Your task to perform on an android device: Search for Italian restaurants on Maps Image 0: 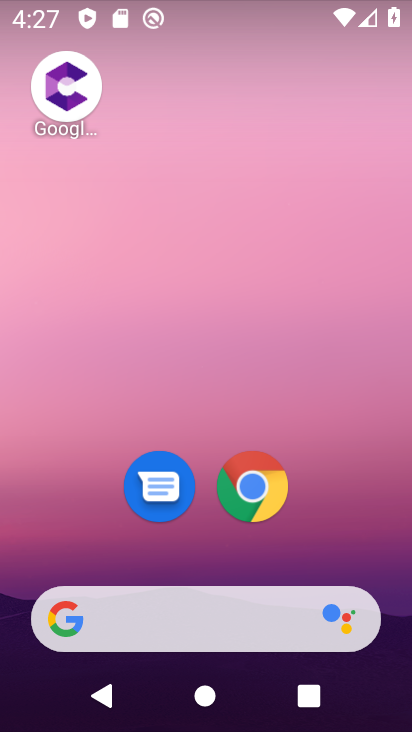
Step 0: drag from (370, 532) to (245, 4)
Your task to perform on an android device: Search for Italian restaurants on Maps Image 1: 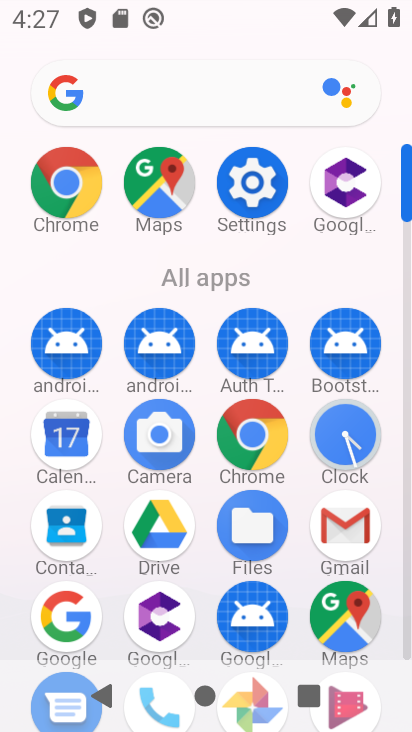
Step 1: click (176, 191)
Your task to perform on an android device: Search for Italian restaurants on Maps Image 2: 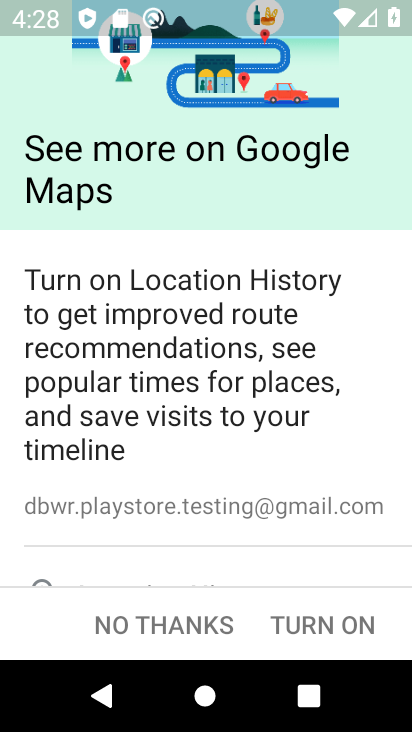
Step 2: click (203, 631)
Your task to perform on an android device: Search for Italian restaurants on Maps Image 3: 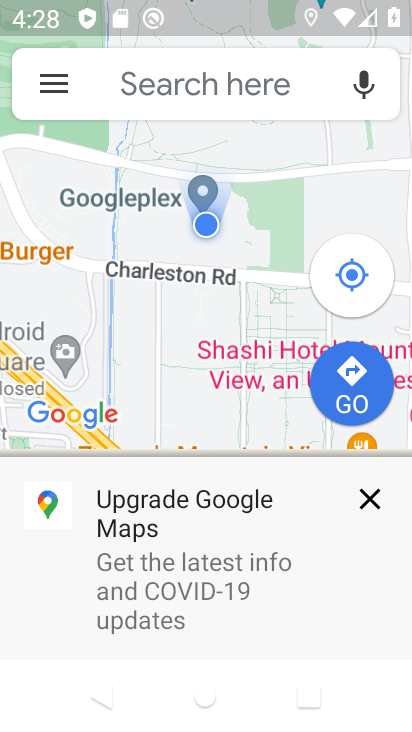
Step 3: click (236, 88)
Your task to perform on an android device: Search for Italian restaurants on Maps Image 4: 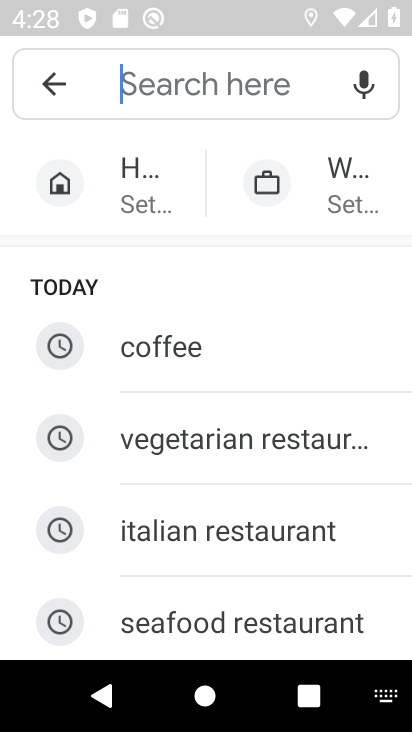
Step 4: click (282, 524)
Your task to perform on an android device: Search for Italian restaurants on Maps Image 5: 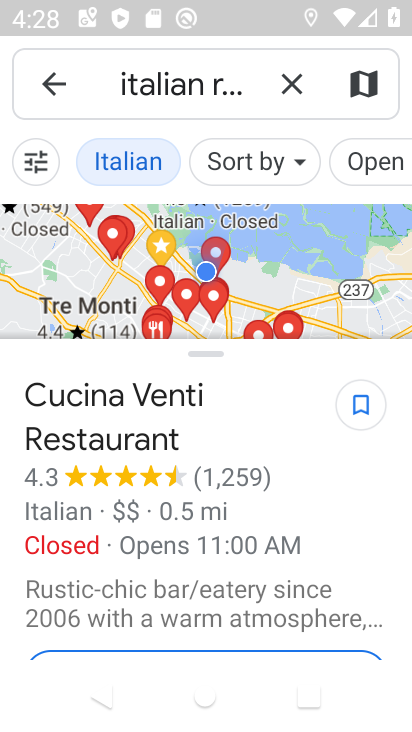
Step 5: task complete